Your task to perform on an android device: change notification settings in the gmail app Image 0: 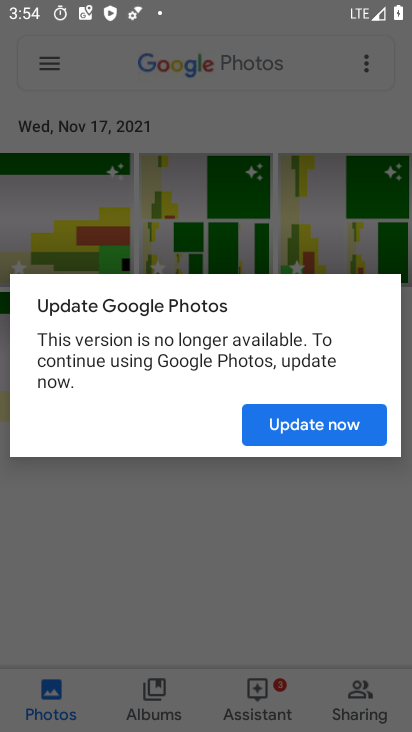
Step 0: press home button
Your task to perform on an android device: change notification settings in the gmail app Image 1: 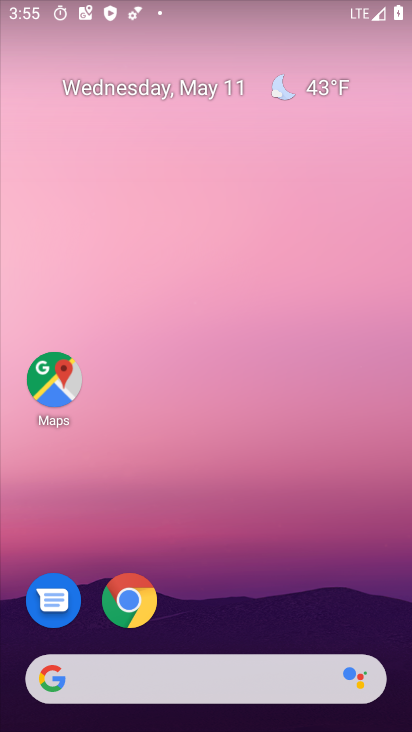
Step 1: drag from (328, 531) to (306, 74)
Your task to perform on an android device: change notification settings in the gmail app Image 2: 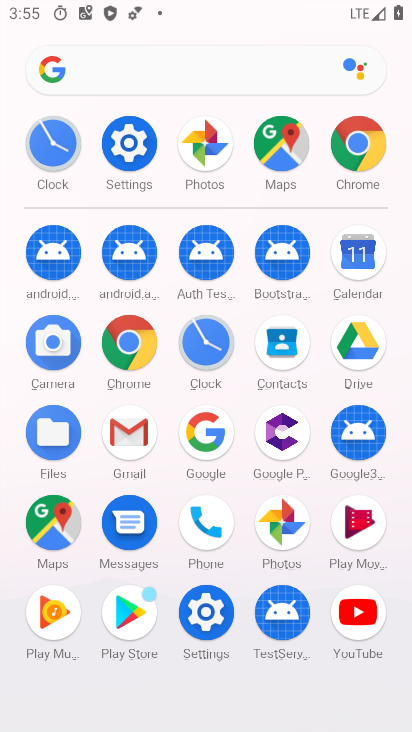
Step 2: click (132, 445)
Your task to perform on an android device: change notification settings in the gmail app Image 3: 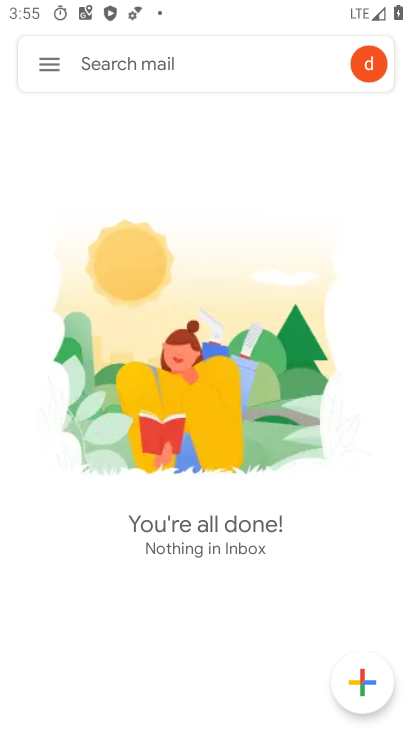
Step 3: click (50, 68)
Your task to perform on an android device: change notification settings in the gmail app Image 4: 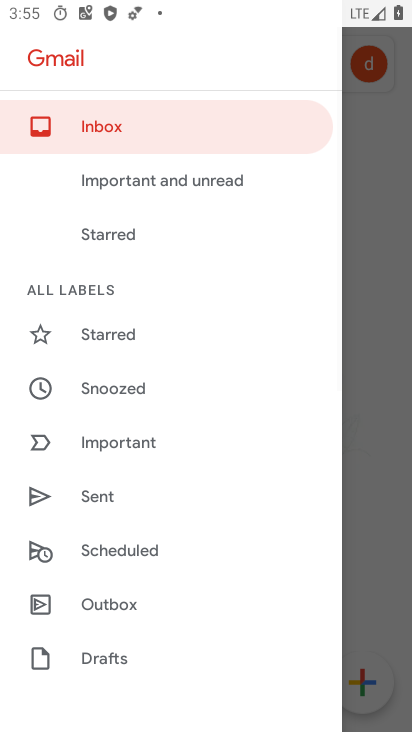
Step 4: drag from (167, 647) to (163, 276)
Your task to perform on an android device: change notification settings in the gmail app Image 5: 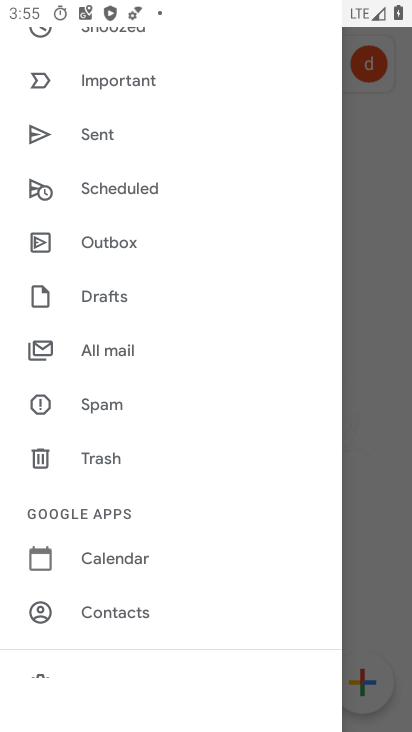
Step 5: drag from (223, 616) to (202, 270)
Your task to perform on an android device: change notification settings in the gmail app Image 6: 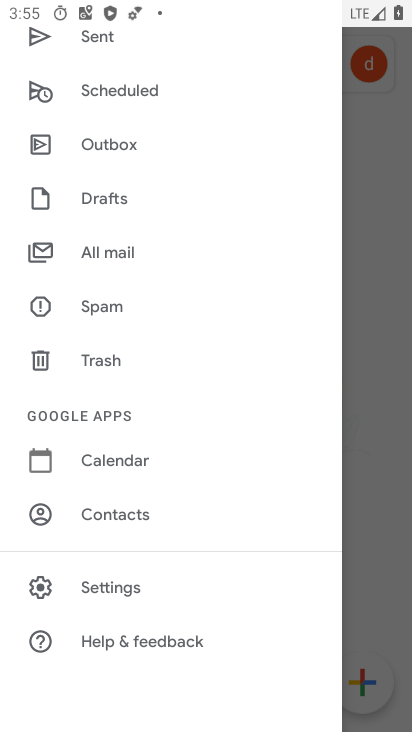
Step 6: click (109, 595)
Your task to perform on an android device: change notification settings in the gmail app Image 7: 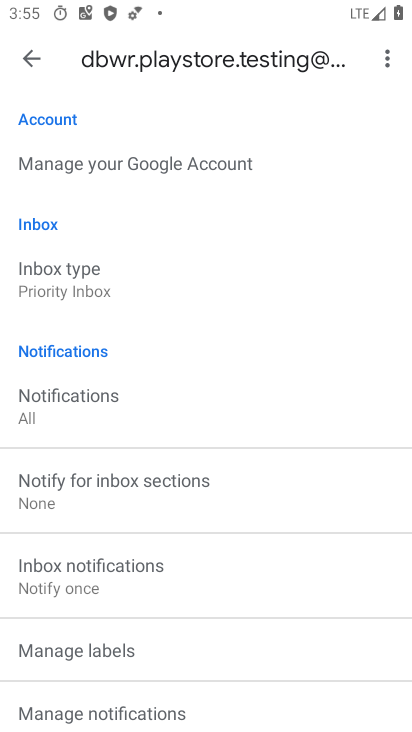
Step 7: click (27, 58)
Your task to perform on an android device: change notification settings in the gmail app Image 8: 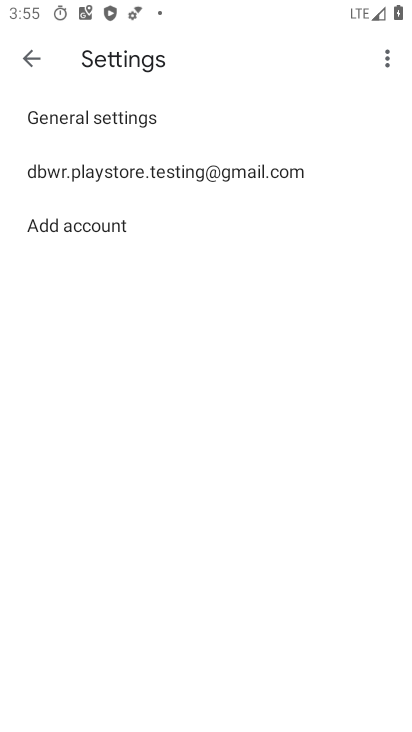
Step 8: click (76, 123)
Your task to perform on an android device: change notification settings in the gmail app Image 9: 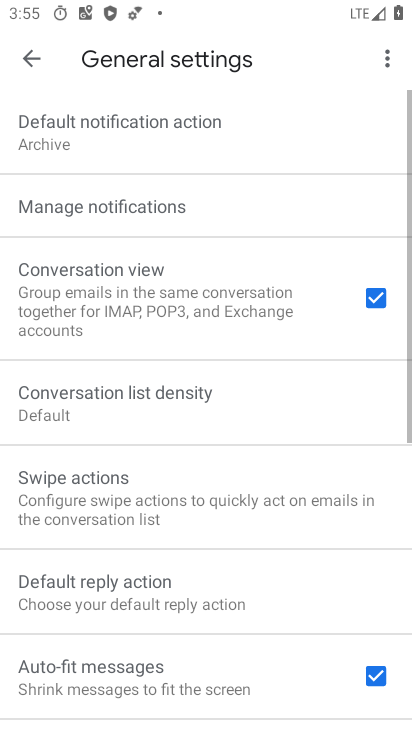
Step 9: click (101, 208)
Your task to perform on an android device: change notification settings in the gmail app Image 10: 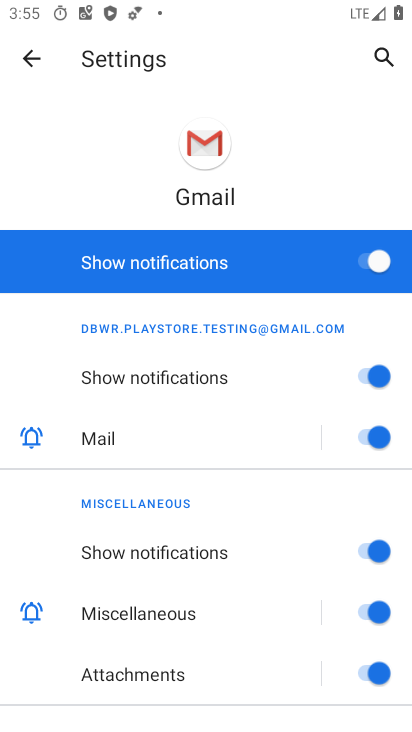
Step 10: click (369, 273)
Your task to perform on an android device: change notification settings in the gmail app Image 11: 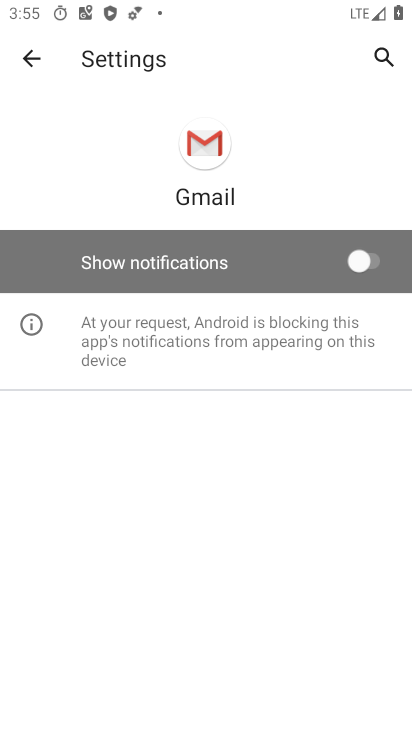
Step 11: task complete